Your task to perform on an android device: toggle improve location accuracy Image 0: 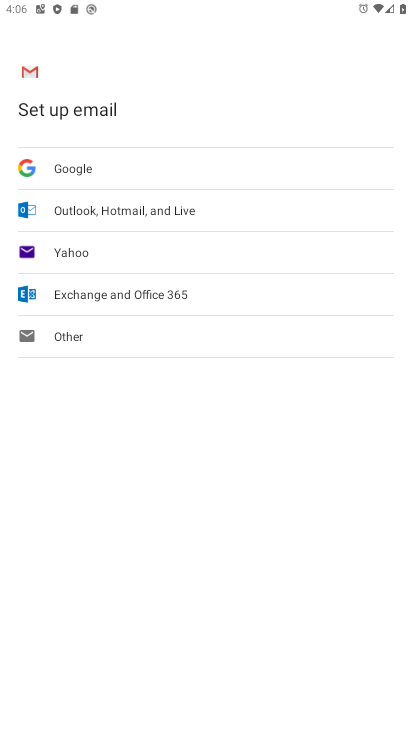
Step 0: press home button
Your task to perform on an android device: toggle improve location accuracy Image 1: 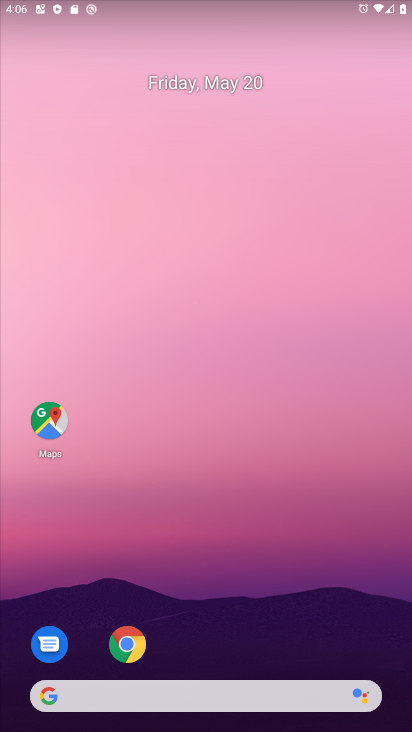
Step 1: drag from (215, 605) to (158, 269)
Your task to perform on an android device: toggle improve location accuracy Image 2: 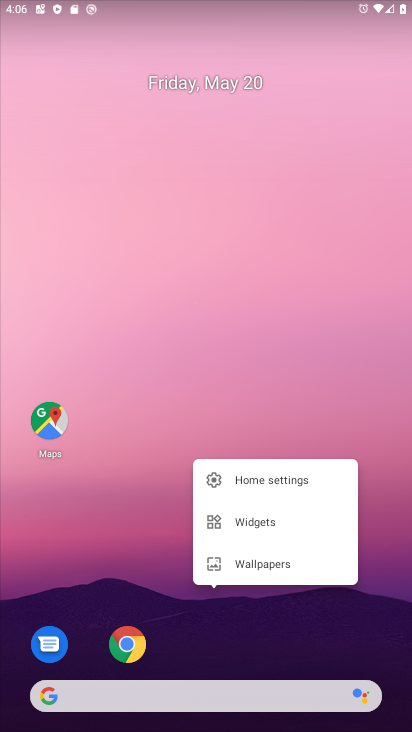
Step 2: click (119, 333)
Your task to perform on an android device: toggle improve location accuracy Image 3: 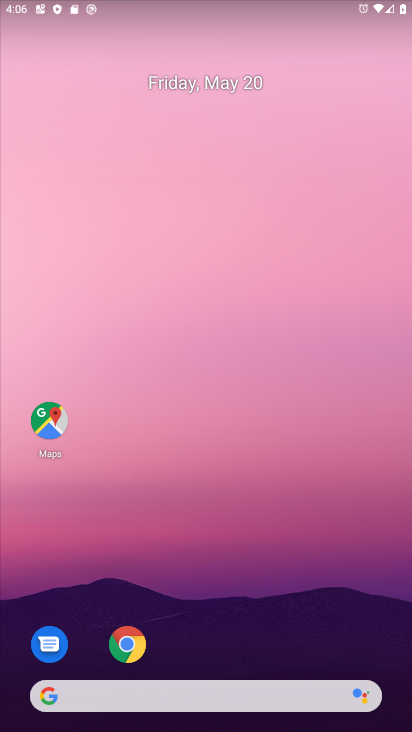
Step 3: click (244, 650)
Your task to perform on an android device: toggle improve location accuracy Image 4: 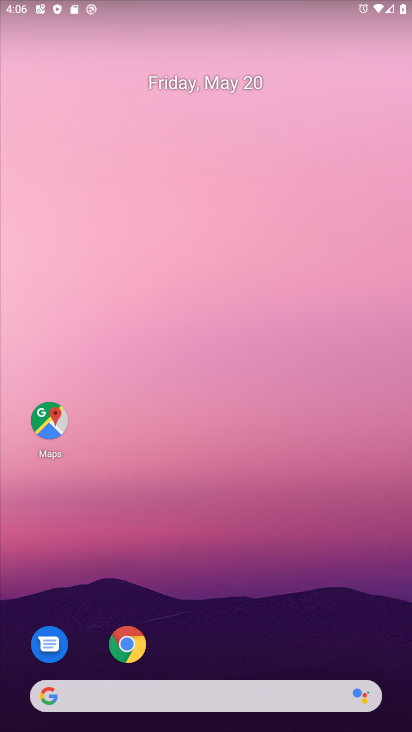
Step 4: drag from (244, 650) to (138, 50)
Your task to perform on an android device: toggle improve location accuracy Image 5: 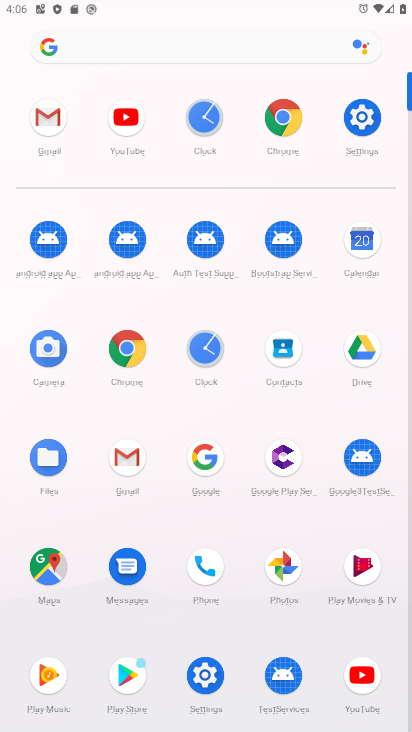
Step 5: click (362, 152)
Your task to perform on an android device: toggle improve location accuracy Image 6: 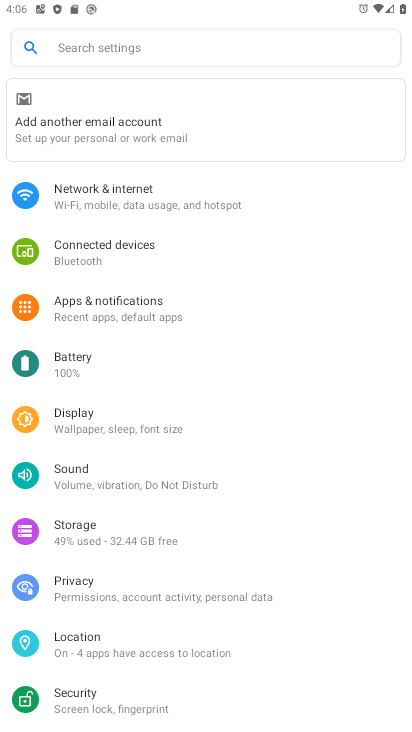
Step 6: click (145, 630)
Your task to perform on an android device: toggle improve location accuracy Image 7: 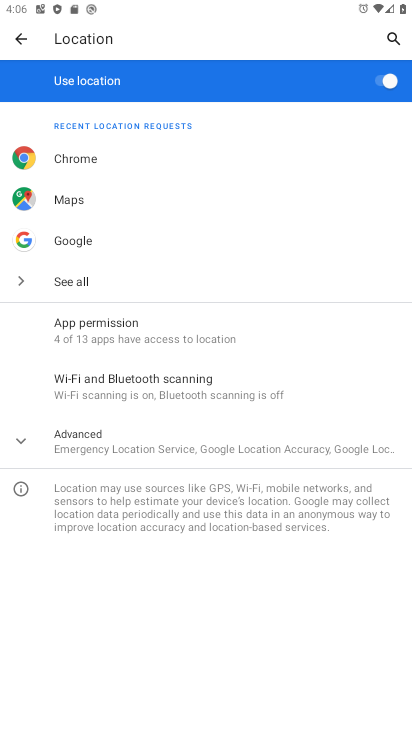
Step 7: click (389, 80)
Your task to perform on an android device: toggle improve location accuracy Image 8: 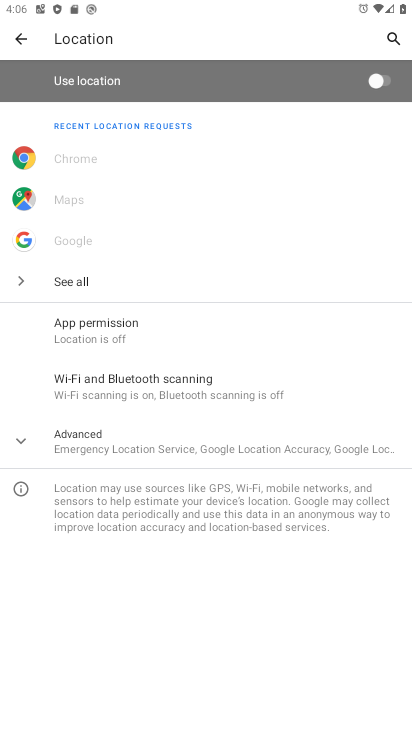
Step 8: task complete